Your task to perform on an android device: turn off airplane mode Image 0: 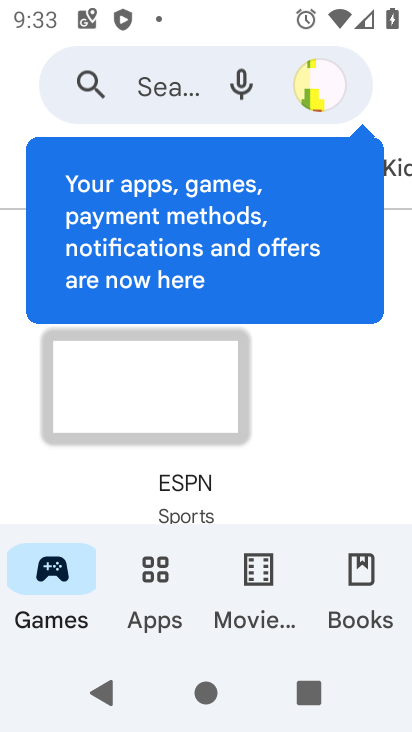
Step 0: drag from (208, 531) to (194, 358)
Your task to perform on an android device: turn off airplane mode Image 1: 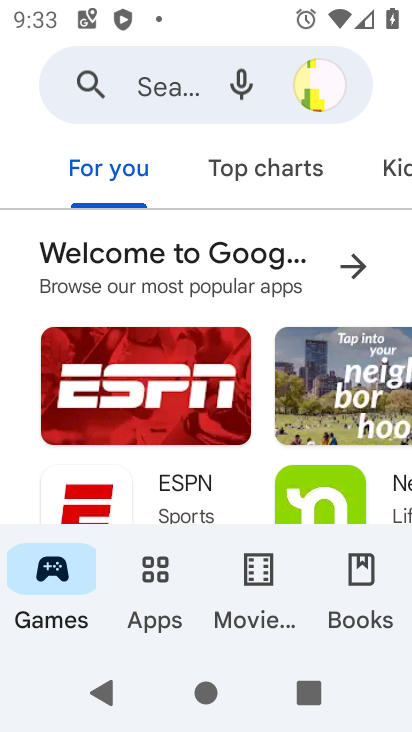
Step 1: press home button
Your task to perform on an android device: turn off airplane mode Image 2: 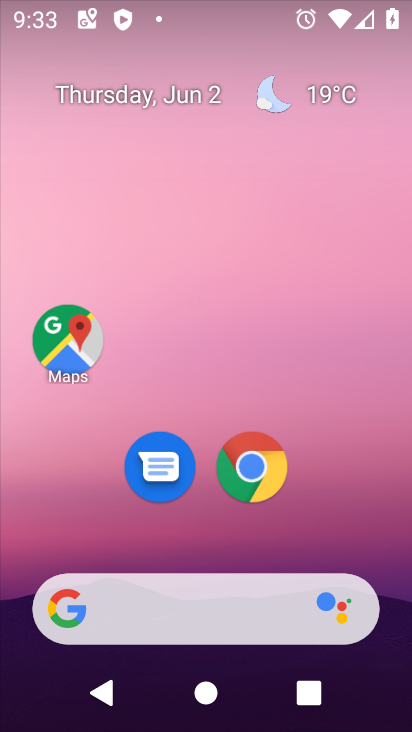
Step 2: drag from (157, 482) to (87, 47)
Your task to perform on an android device: turn off airplane mode Image 3: 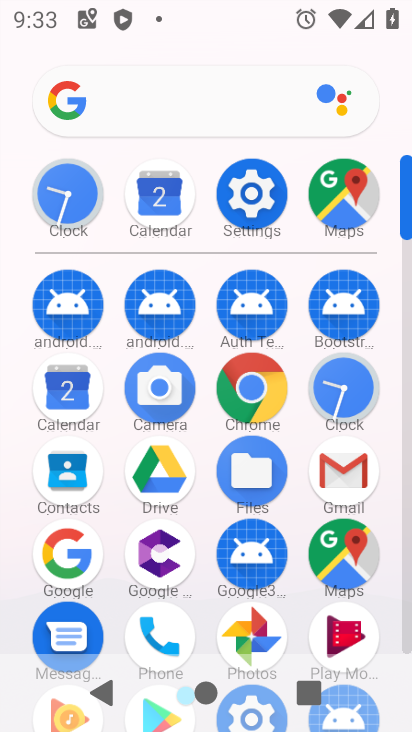
Step 3: click (264, 204)
Your task to perform on an android device: turn off airplane mode Image 4: 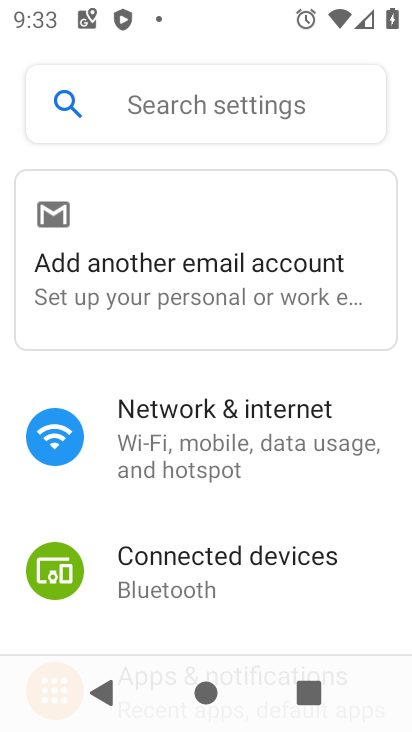
Step 4: click (222, 418)
Your task to perform on an android device: turn off airplane mode Image 5: 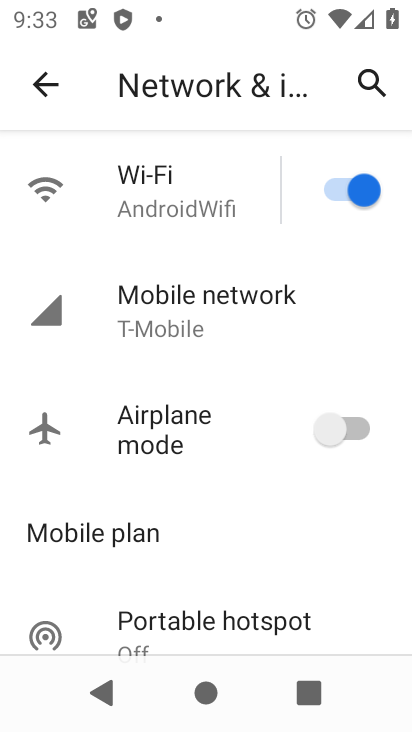
Step 5: task complete